Your task to perform on an android device: change alarm snooze length Image 0: 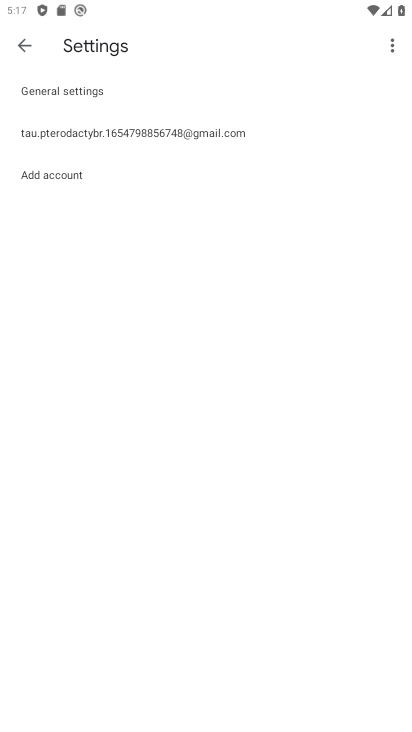
Step 0: press home button
Your task to perform on an android device: change alarm snooze length Image 1: 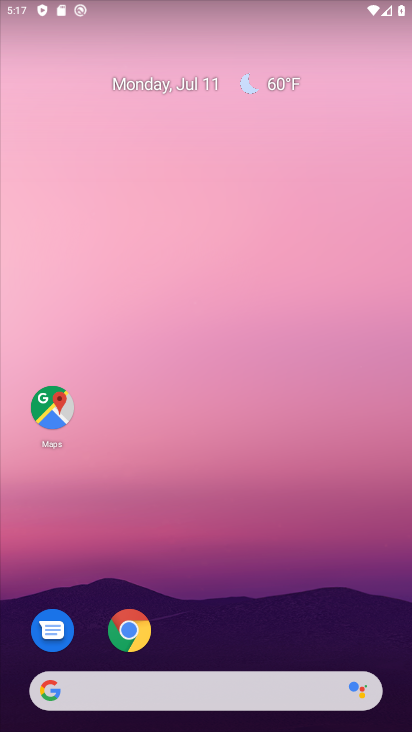
Step 1: click (212, 656)
Your task to perform on an android device: change alarm snooze length Image 2: 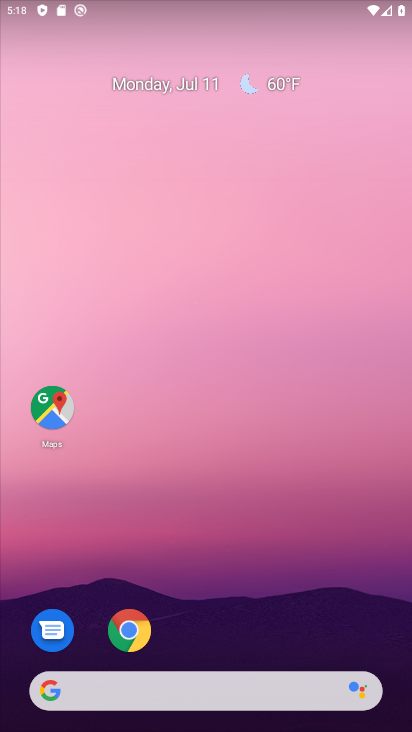
Step 2: drag from (207, 71) to (177, 23)
Your task to perform on an android device: change alarm snooze length Image 3: 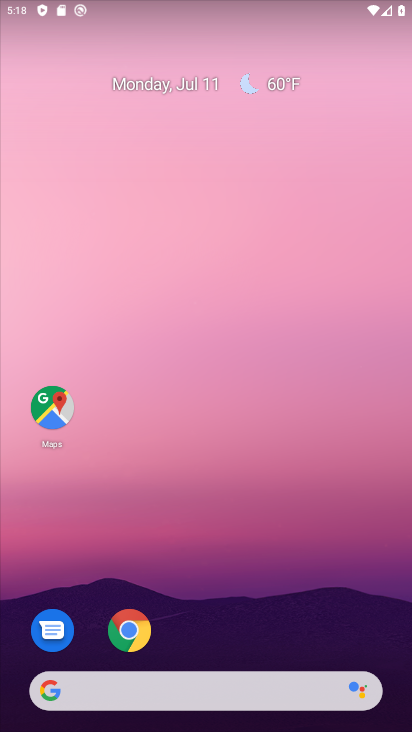
Step 3: drag from (191, 627) to (191, 455)
Your task to perform on an android device: change alarm snooze length Image 4: 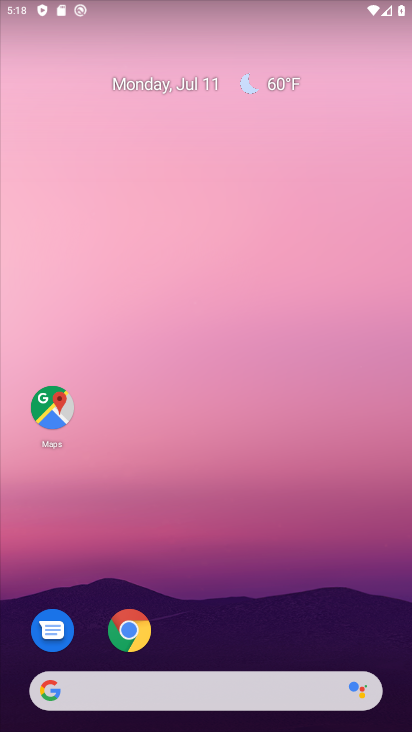
Step 4: click (187, 637)
Your task to perform on an android device: change alarm snooze length Image 5: 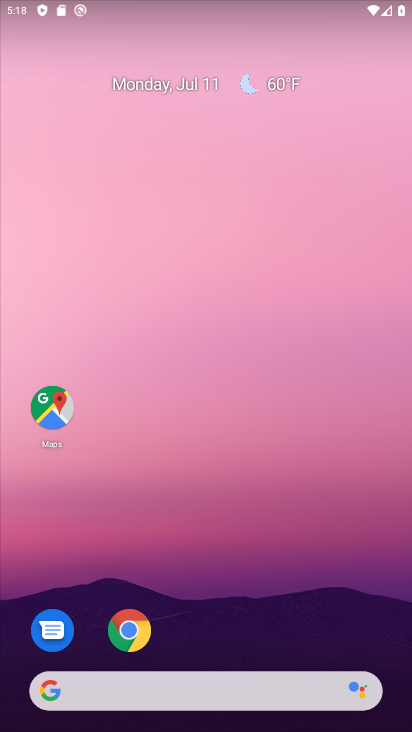
Step 5: drag from (187, 585) to (242, 60)
Your task to perform on an android device: change alarm snooze length Image 6: 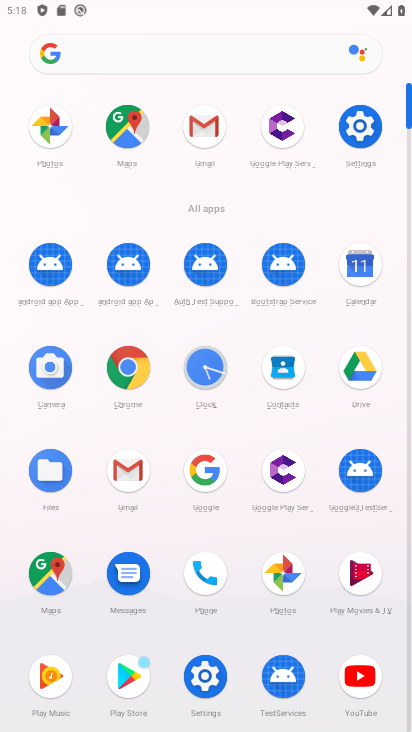
Step 6: click (242, 60)
Your task to perform on an android device: change alarm snooze length Image 7: 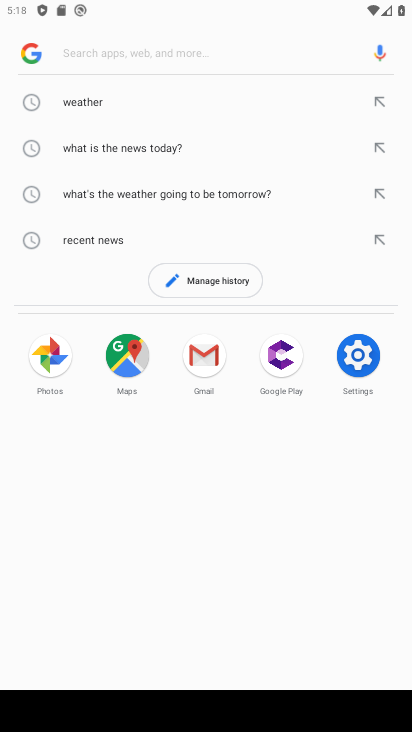
Step 7: press back button
Your task to perform on an android device: change alarm snooze length Image 8: 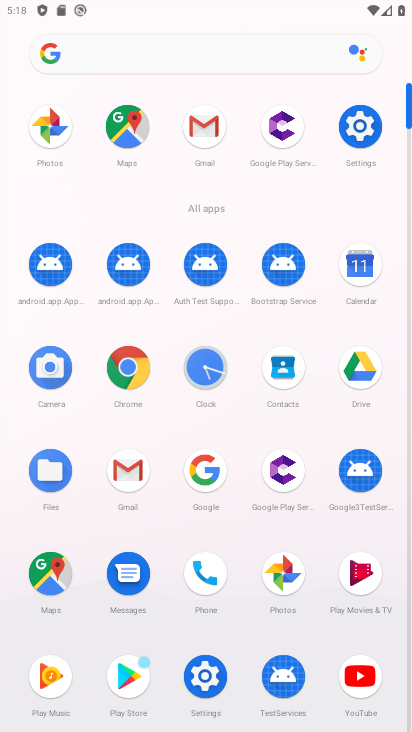
Step 8: click (201, 369)
Your task to perform on an android device: change alarm snooze length Image 9: 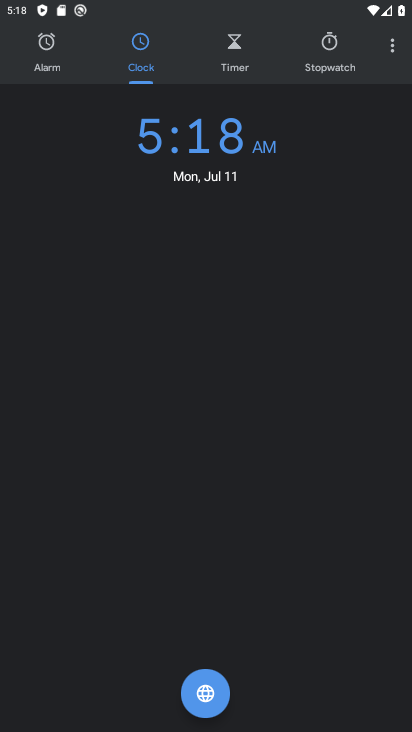
Step 9: click (388, 52)
Your task to perform on an android device: change alarm snooze length Image 10: 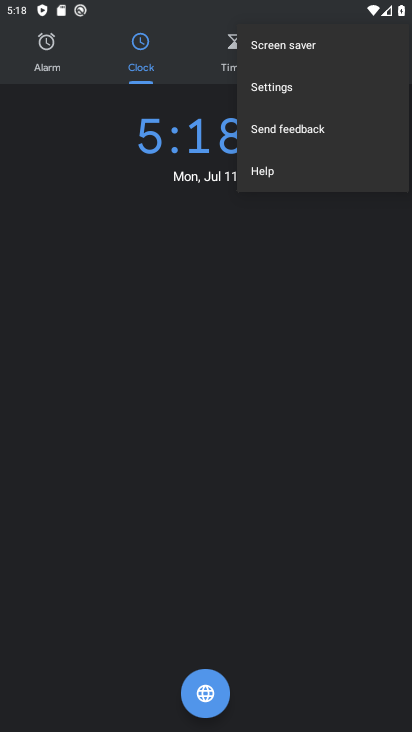
Step 10: click (270, 88)
Your task to perform on an android device: change alarm snooze length Image 11: 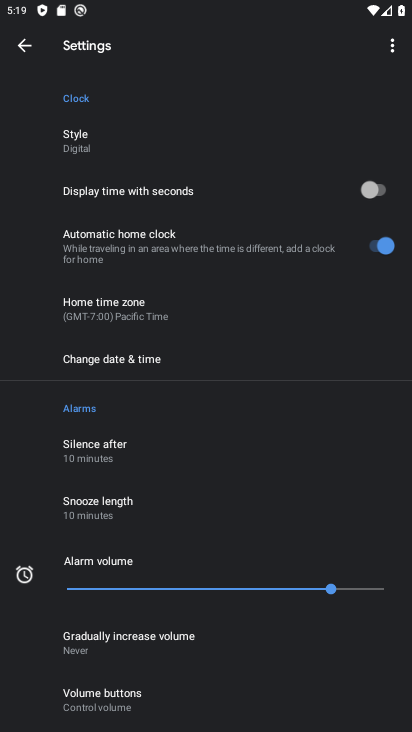
Step 11: click (112, 527)
Your task to perform on an android device: change alarm snooze length Image 12: 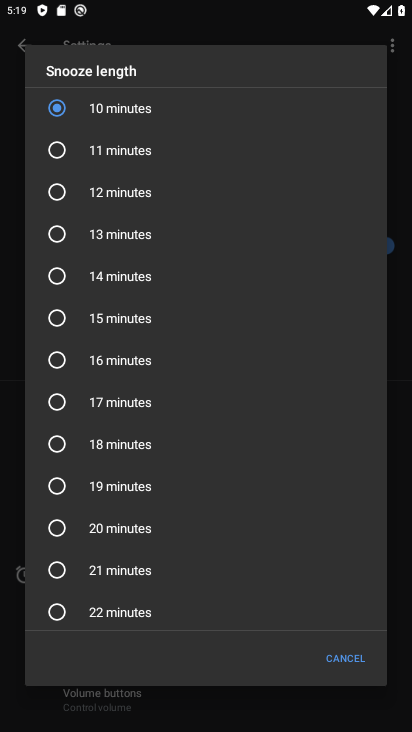
Step 12: click (52, 532)
Your task to perform on an android device: change alarm snooze length Image 13: 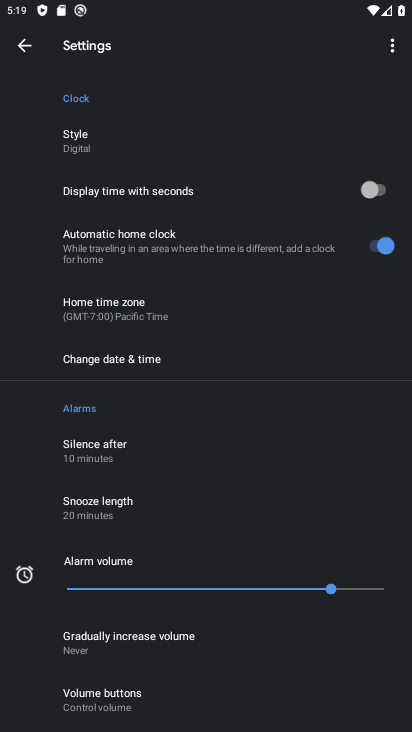
Step 13: task complete